Your task to perform on an android device: Open ESPN.com Image 0: 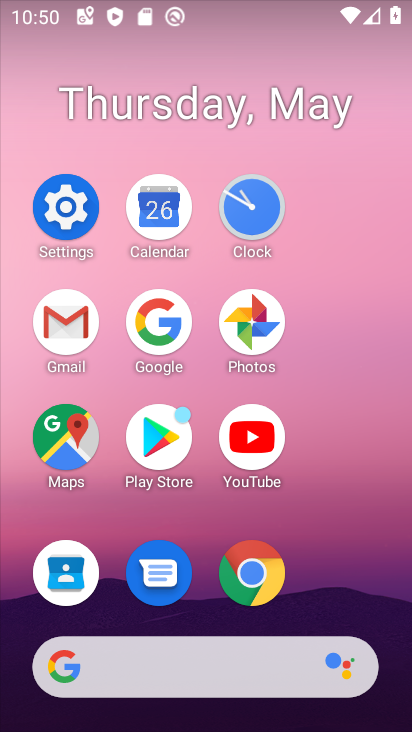
Step 0: click (256, 596)
Your task to perform on an android device: Open ESPN.com Image 1: 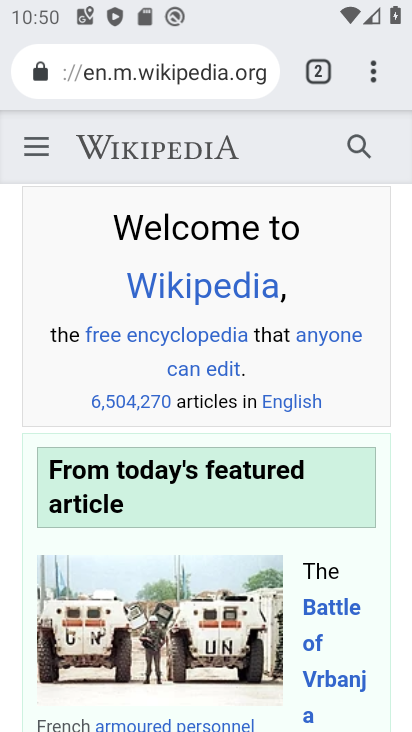
Step 1: click (311, 73)
Your task to perform on an android device: Open ESPN.com Image 2: 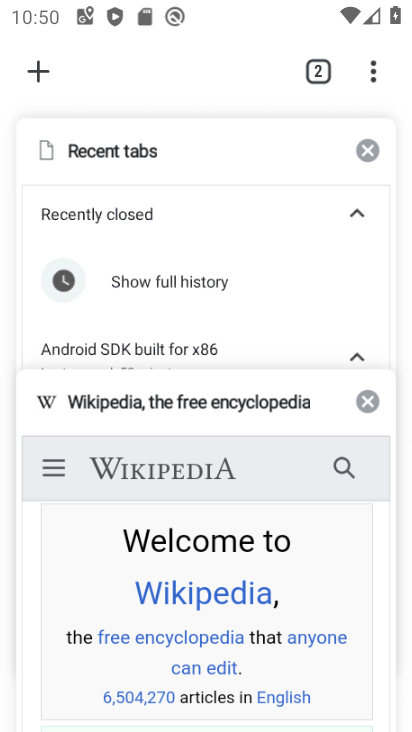
Step 2: click (53, 89)
Your task to perform on an android device: Open ESPN.com Image 3: 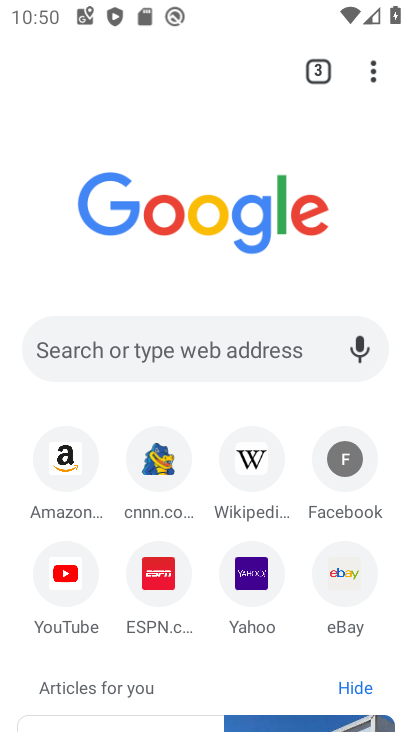
Step 3: click (163, 578)
Your task to perform on an android device: Open ESPN.com Image 4: 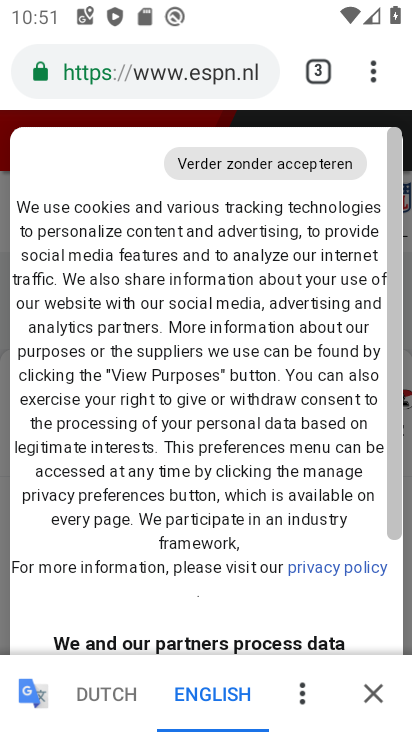
Step 4: task complete